Your task to perform on an android device: turn on location history Image 0: 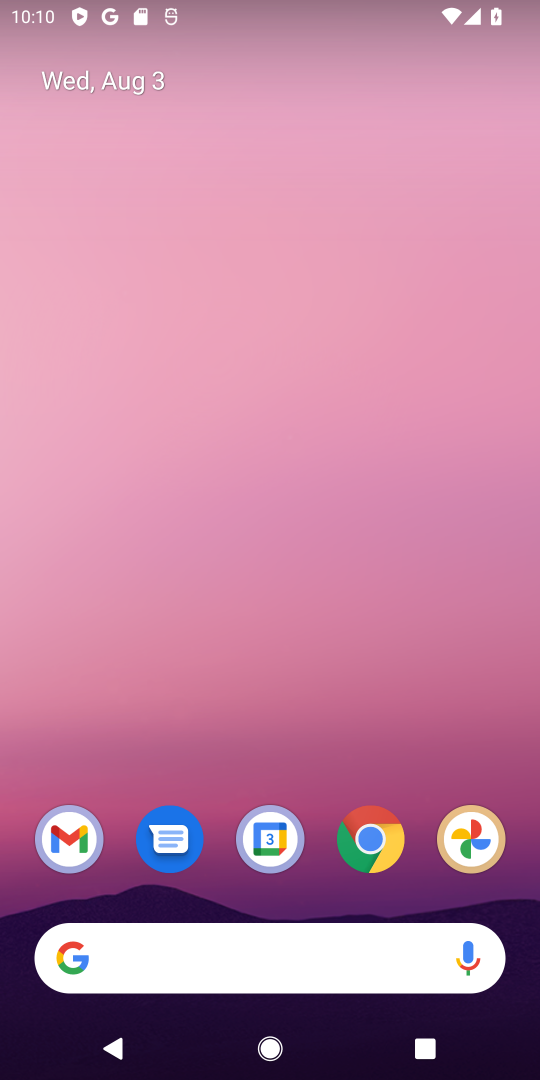
Step 0: drag from (201, 779) to (309, 16)
Your task to perform on an android device: turn on location history Image 1: 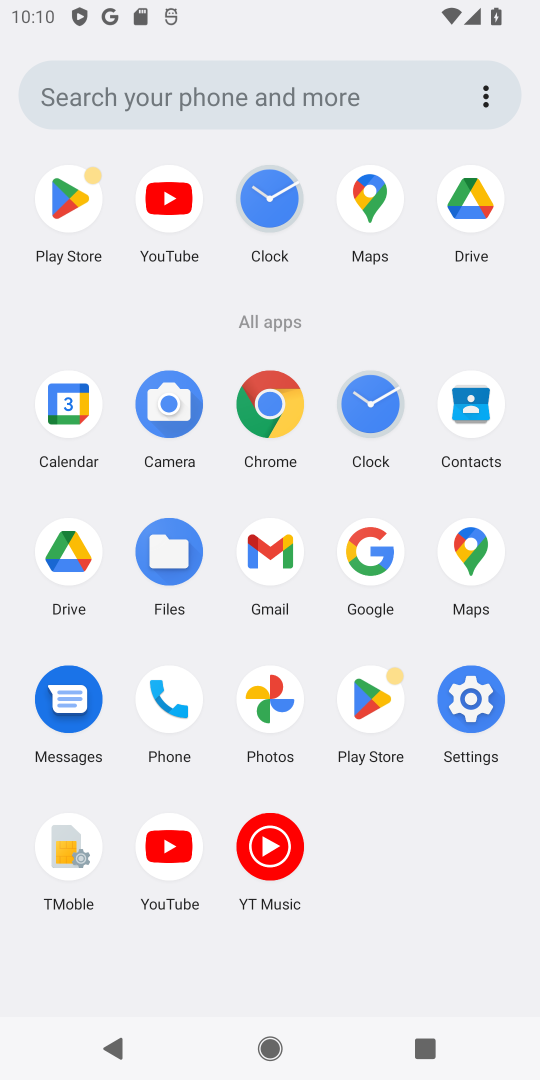
Step 1: click (485, 719)
Your task to perform on an android device: turn on location history Image 2: 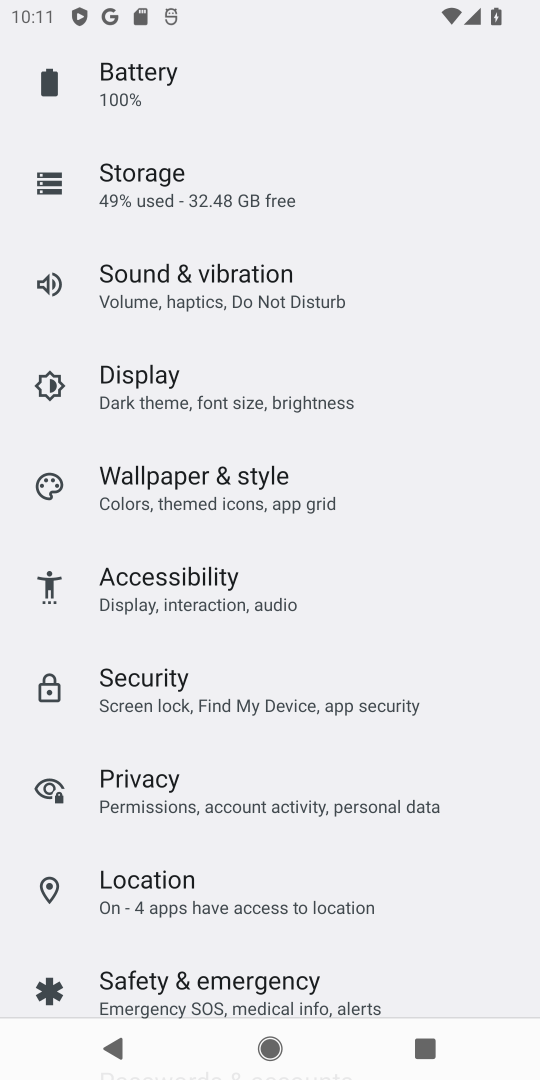
Step 2: click (172, 910)
Your task to perform on an android device: turn on location history Image 3: 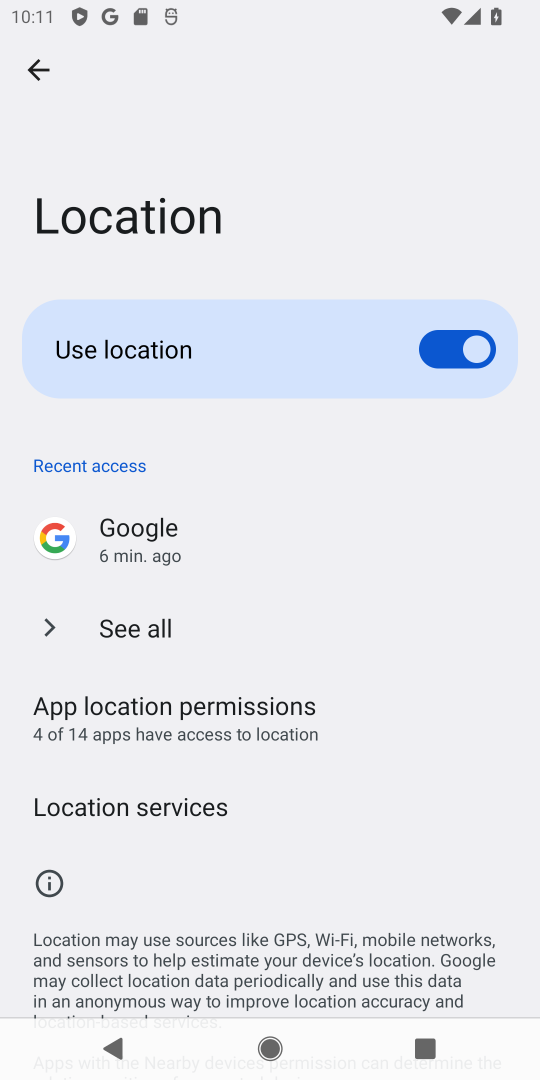
Step 3: click (148, 807)
Your task to perform on an android device: turn on location history Image 4: 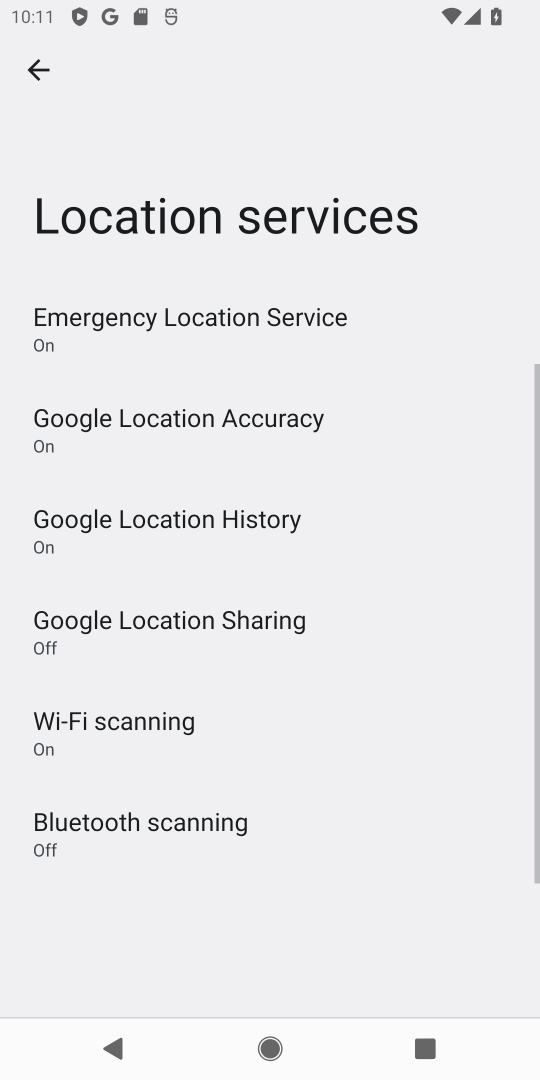
Step 4: click (266, 522)
Your task to perform on an android device: turn on location history Image 5: 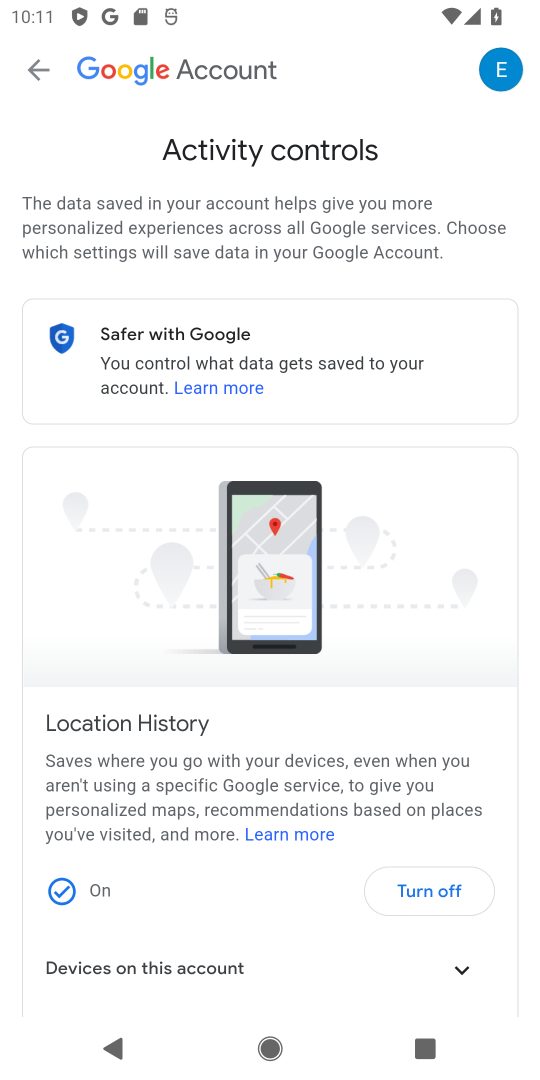
Step 5: task complete